Your task to perform on an android device: turn off picture-in-picture Image 0: 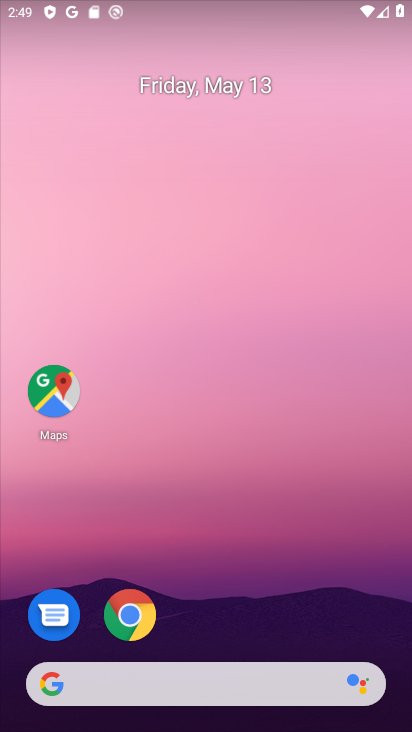
Step 0: click (143, 609)
Your task to perform on an android device: turn off picture-in-picture Image 1: 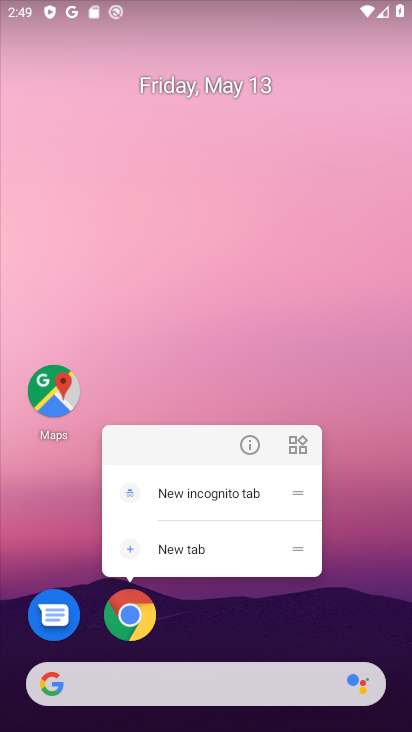
Step 1: click (264, 450)
Your task to perform on an android device: turn off picture-in-picture Image 2: 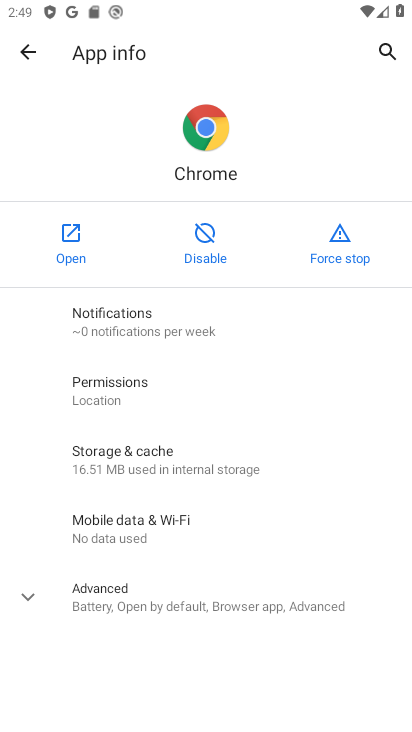
Step 2: drag from (237, 641) to (361, 164)
Your task to perform on an android device: turn off picture-in-picture Image 3: 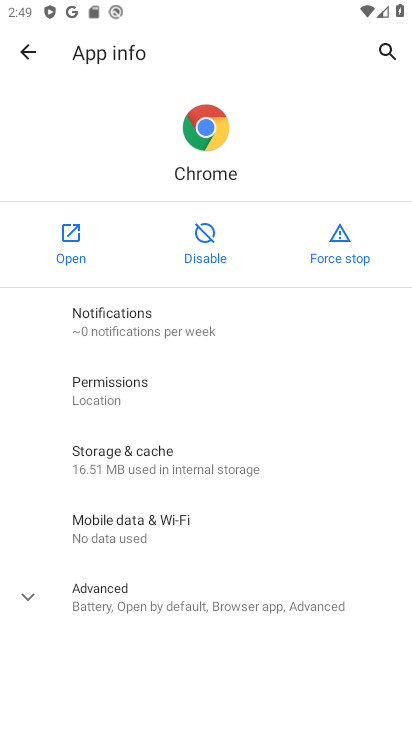
Step 3: click (122, 601)
Your task to perform on an android device: turn off picture-in-picture Image 4: 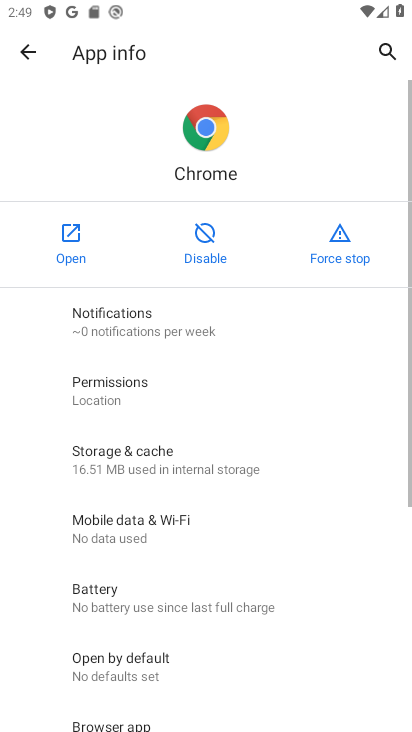
Step 4: drag from (130, 629) to (336, 150)
Your task to perform on an android device: turn off picture-in-picture Image 5: 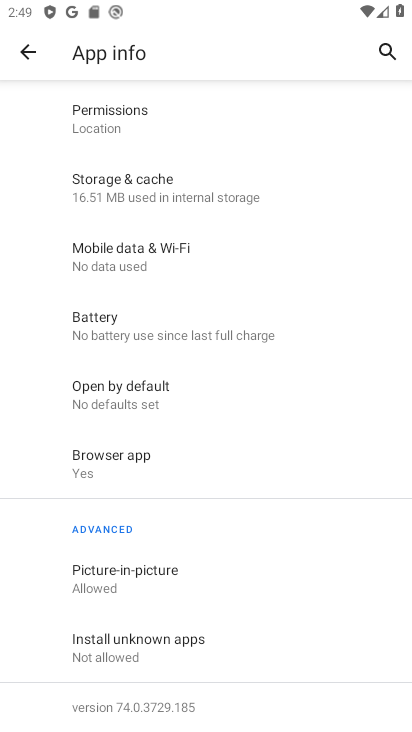
Step 5: click (112, 584)
Your task to perform on an android device: turn off picture-in-picture Image 6: 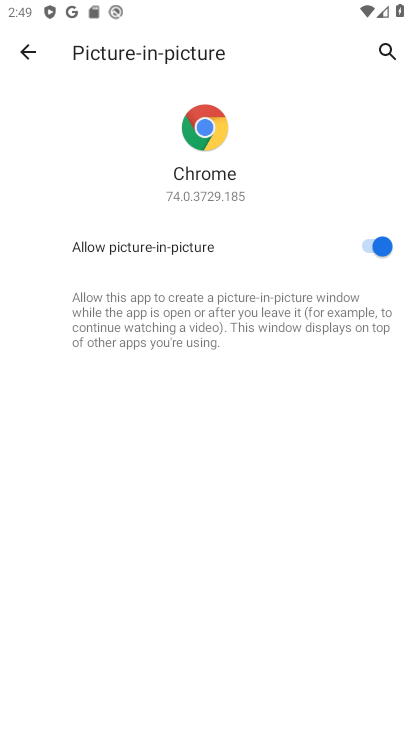
Step 6: click (372, 250)
Your task to perform on an android device: turn off picture-in-picture Image 7: 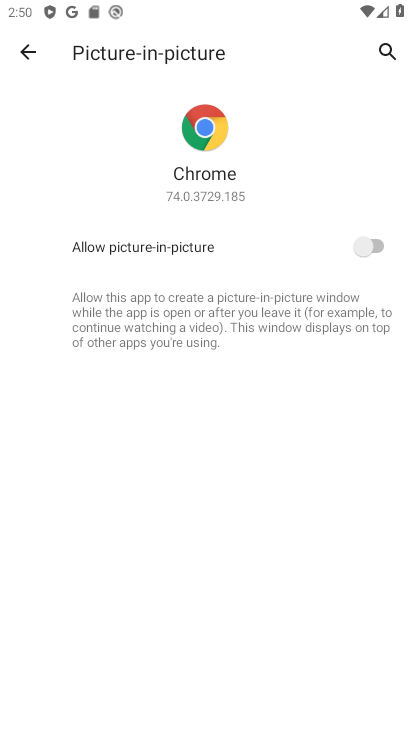
Step 7: task complete